Your task to perform on an android device: Search for sushi restaurants on Maps Image 0: 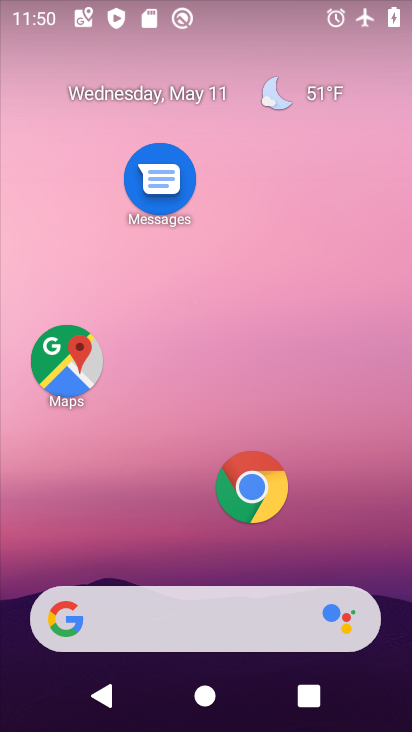
Step 0: click (80, 381)
Your task to perform on an android device: Search for sushi restaurants on Maps Image 1: 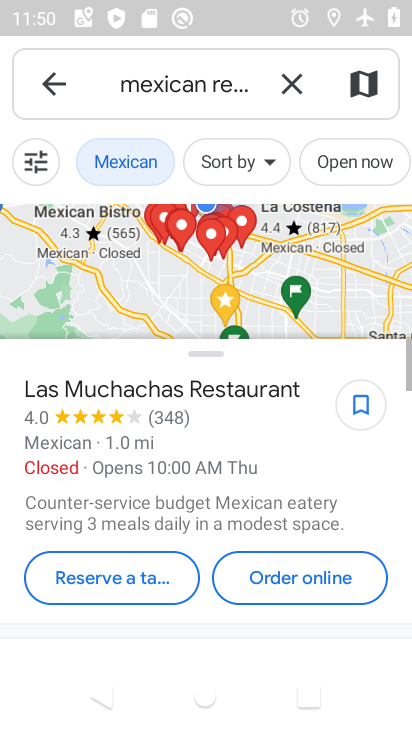
Step 1: click (296, 77)
Your task to perform on an android device: Search for sushi restaurants on Maps Image 2: 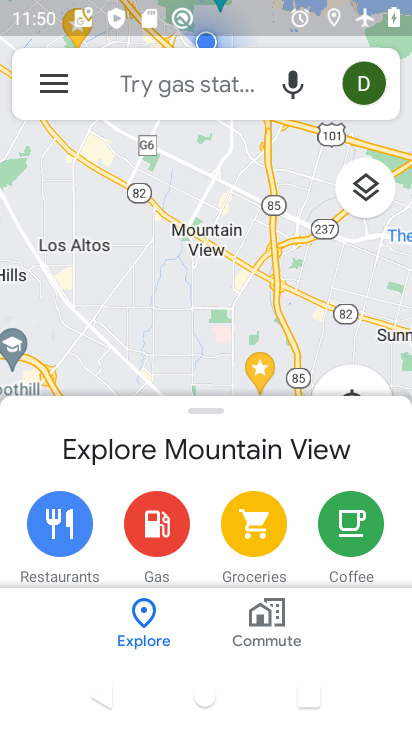
Step 2: click (204, 77)
Your task to perform on an android device: Search for sushi restaurants on Maps Image 3: 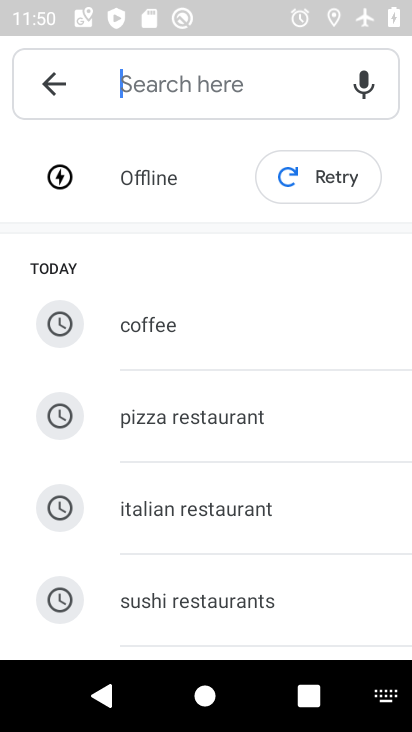
Step 3: click (214, 583)
Your task to perform on an android device: Search for sushi restaurants on Maps Image 4: 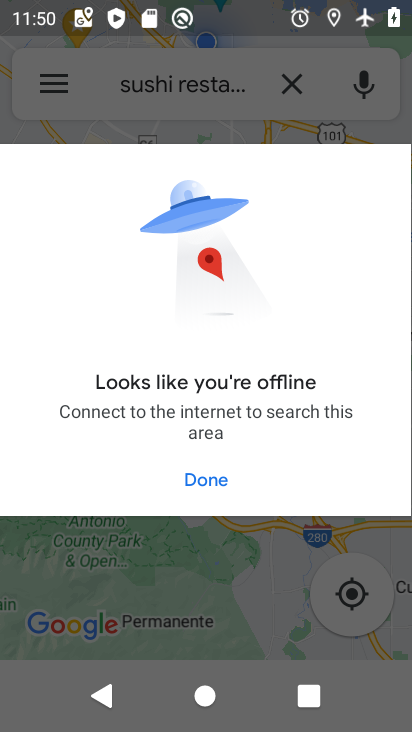
Step 4: click (203, 484)
Your task to perform on an android device: Search for sushi restaurants on Maps Image 5: 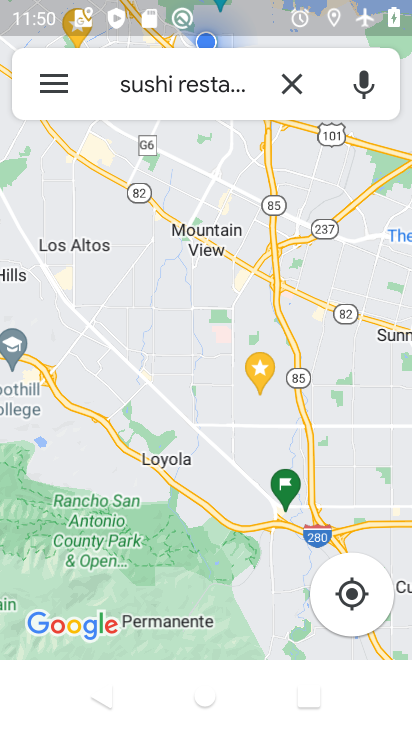
Step 5: task complete